Your task to perform on an android device: Go to ESPN.com Image 0: 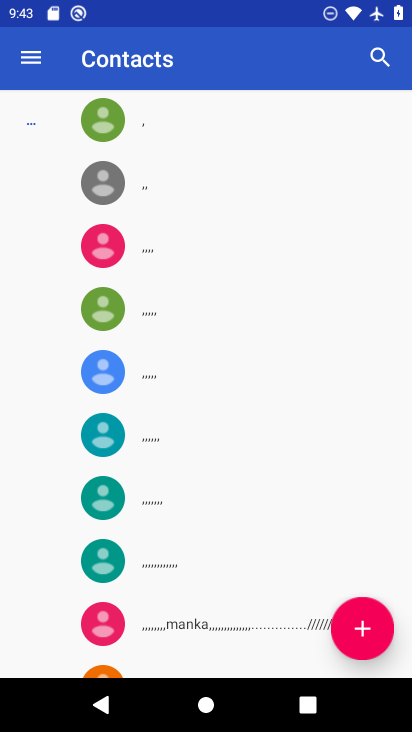
Step 0: press home button
Your task to perform on an android device: Go to ESPN.com Image 1: 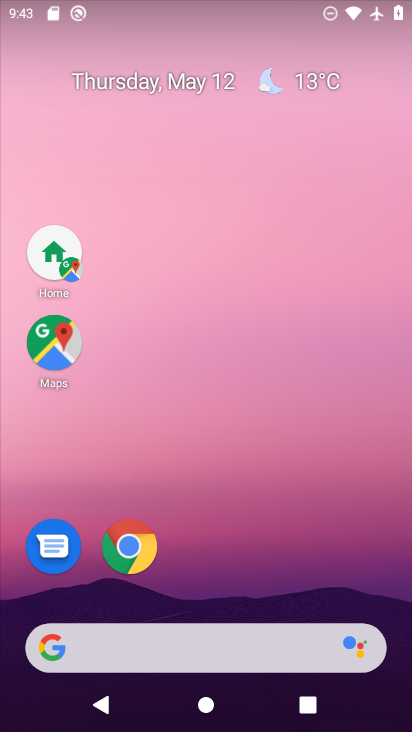
Step 1: click (129, 552)
Your task to perform on an android device: Go to ESPN.com Image 2: 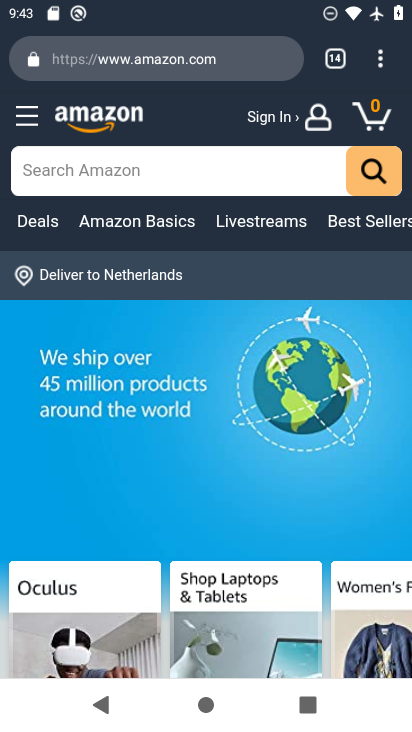
Step 2: drag from (383, 64) to (231, 126)
Your task to perform on an android device: Go to ESPN.com Image 3: 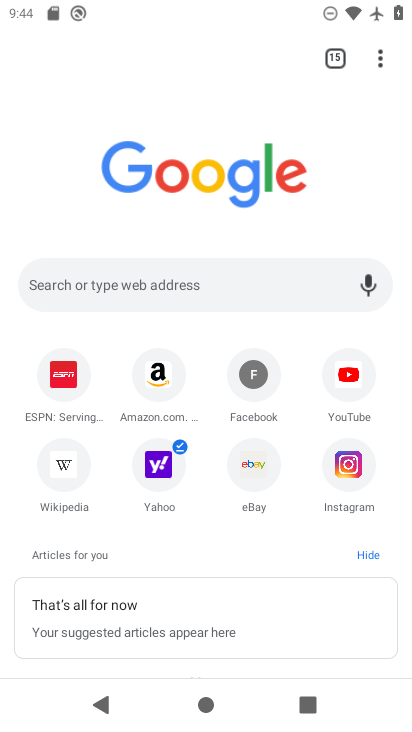
Step 3: click (70, 380)
Your task to perform on an android device: Go to ESPN.com Image 4: 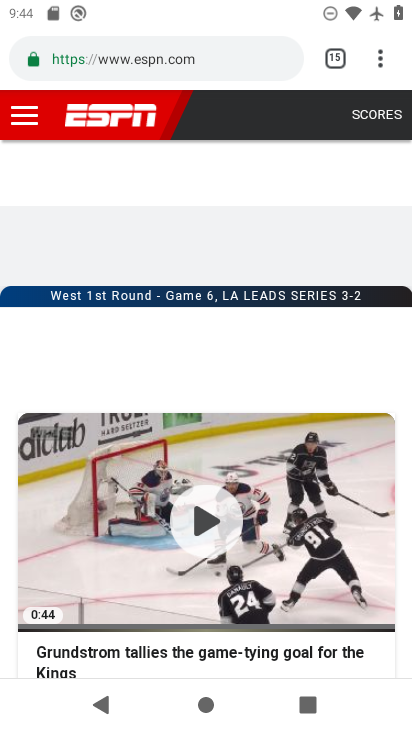
Step 4: task complete